Your task to perform on an android device: Open Reddit.com Image 0: 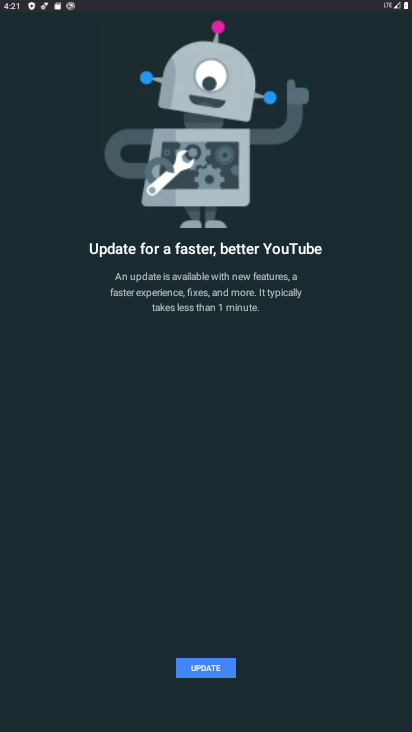
Step 0: press home button
Your task to perform on an android device: Open Reddit.com Image 1: 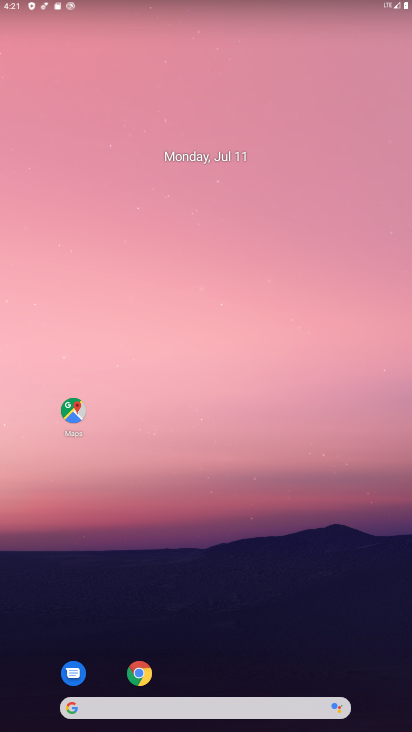
Step 1: drag from (288, 666) to (293, 202)
Your task to perform on an android device: Open Reddit.com Image 2: 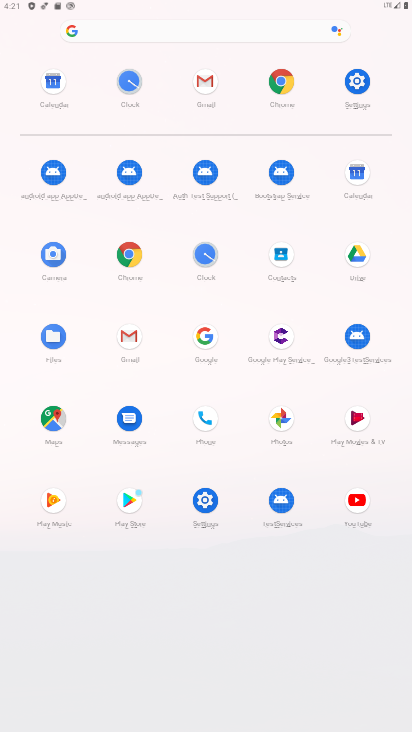
Step 2: click (284, 78)
Your task to perform on an android device: Open Reddit.com Image 3: 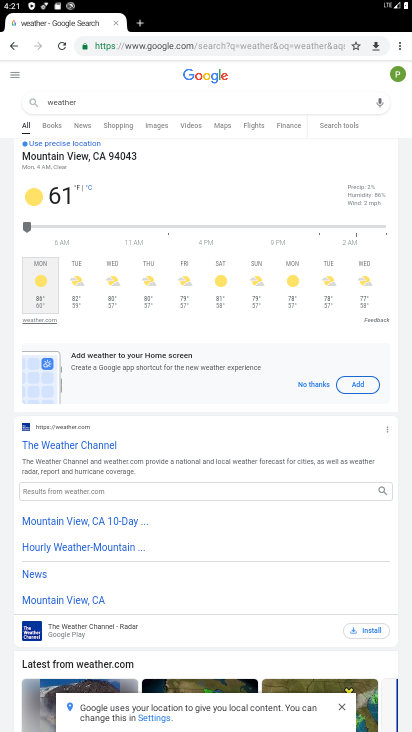
Step 3: click (232, 47)
Your task to perform on an android device: Open Reddit.com Image 4: 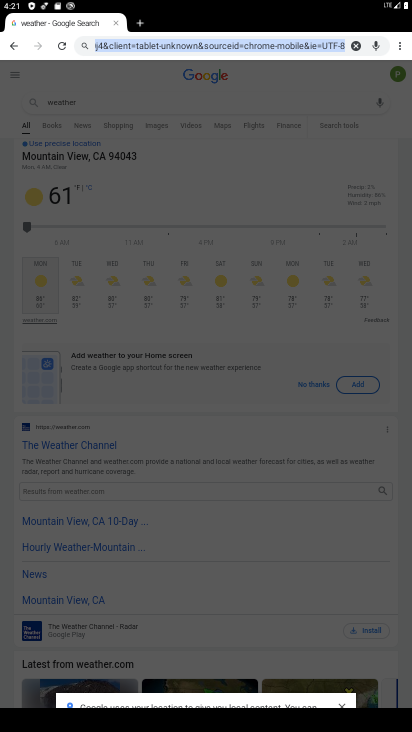
Step 4: type "reddit.com"
Your task to perform on an android device: Open Reddit.com Image 5: 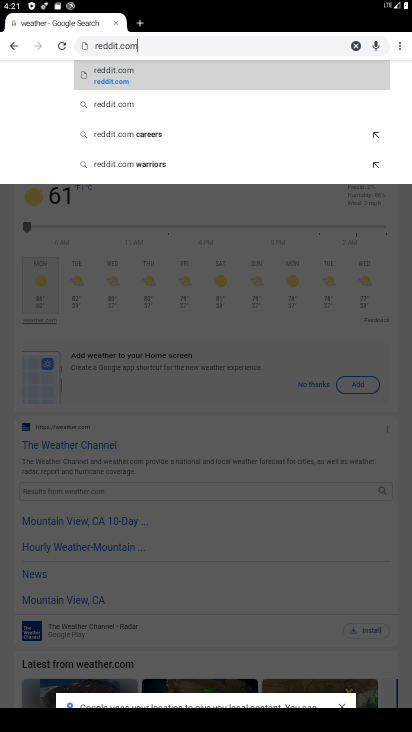
Step 5: click (105, 73)
Your task to perform on an android device: Open Reddit.com Image 6: 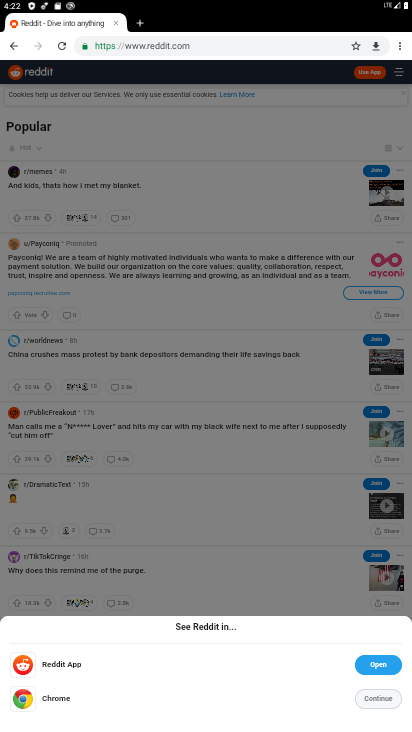
Step 6: task complete